Your task to perform on an android device: open the mobile data screen to see how much data has been used Image 0: 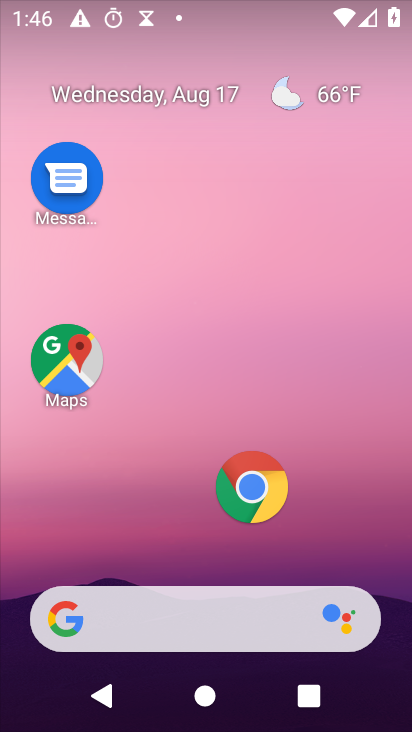
Step 0: press home button
Your task to perform on an android device: open the mobile data screen to see how much data has been used Image 1: 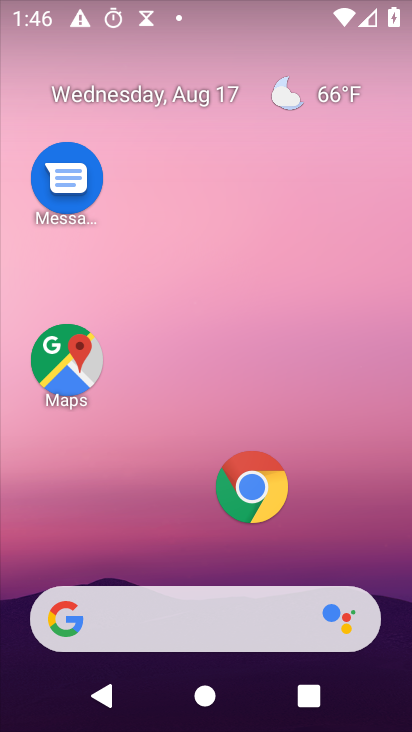
Step 1: drag from (189, 476) to (236, 69)
Your task to perform on an android device: open the mobile data screen to see how much data has been used Image 2: 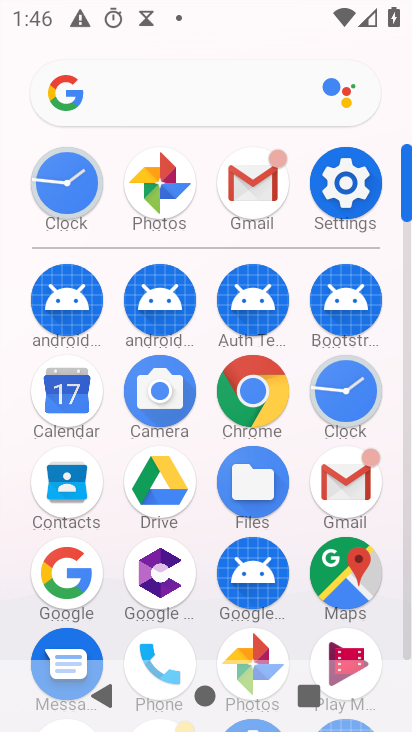
Step 2: click (360, 184)
Your task to perform on an android device: open the mobile data screen to see how much data has been used Image 3: 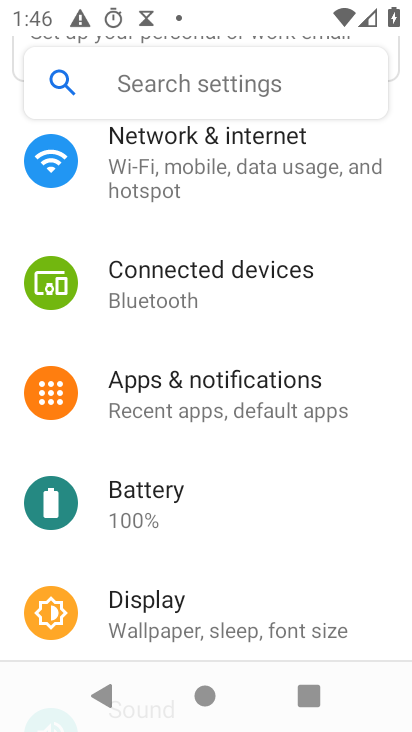
Step 3: click (228, 179)
Your task to perform on an android device: open the mobile data screen to see how much data has been used Image 4: 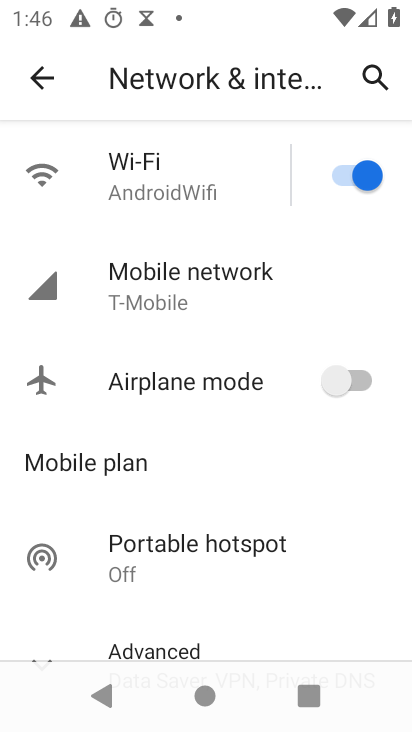
Step 4: click (181, 280)
Your task to perform on an android device: open the mobile data screen to see how much data has been used Image 5: 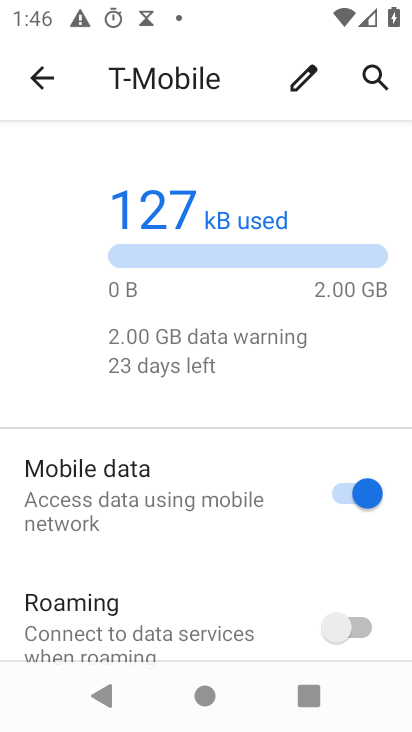
Step 5: drag from (250, 428) to (261, 280)
Your task to perform on an android device: open the mobile data screen to see how much data has been used Image 6: 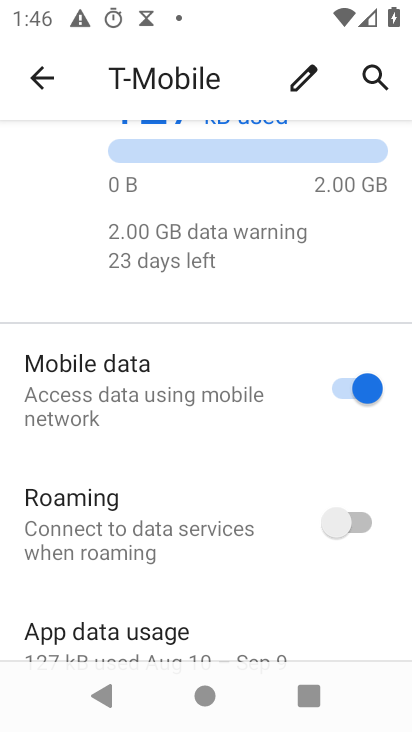
Step 6: click (97, 641)
Your task to perform on an android device: open the mobile data screen to see how much data has been used Image 7: 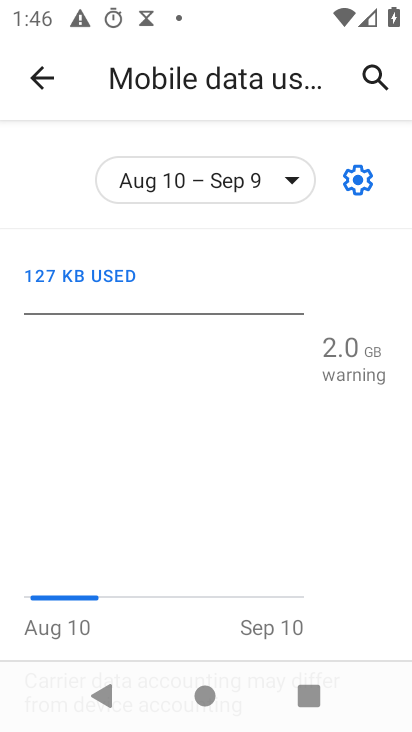
Step 7: task complete